Your task to perform on an android device: When is my next appointment? Image 0: 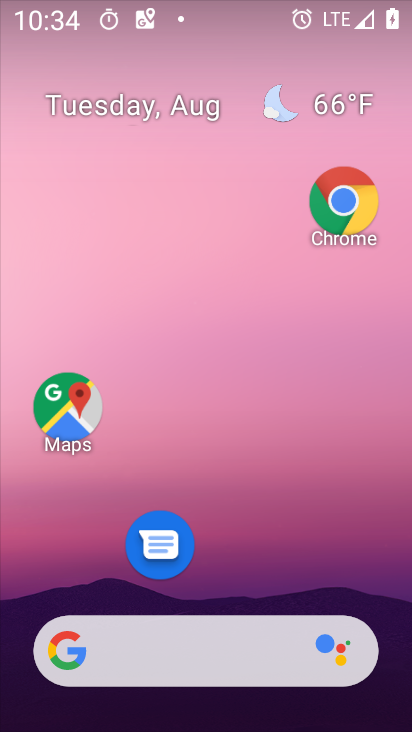
Step 0: drag from (202, 630) to (242, 41)
Your task to perform on an android device: When is my next appointment? Image 1: 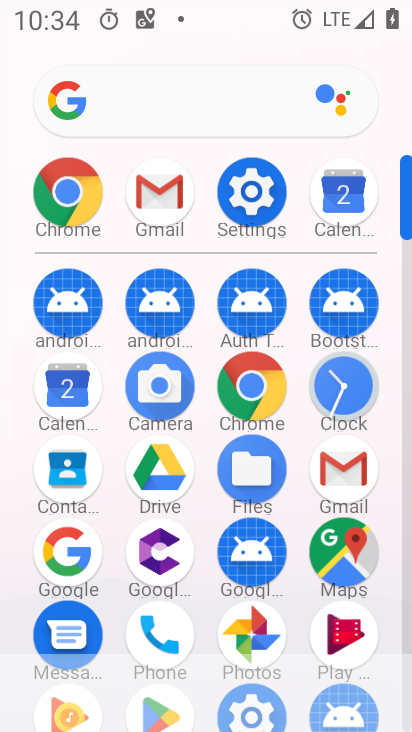
Step 1: click (70, 390)
Your task to perform on an android device: When is my next appointment? Image 2: 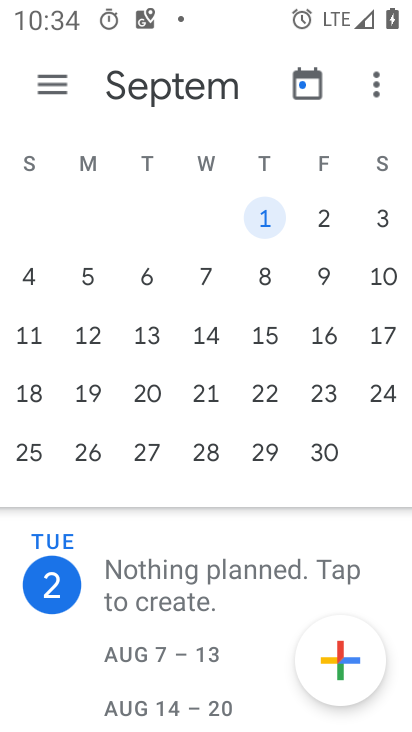
Step 2: click (55, 81)
Your task to perform on an android device: When is my next appointment? Image 3: 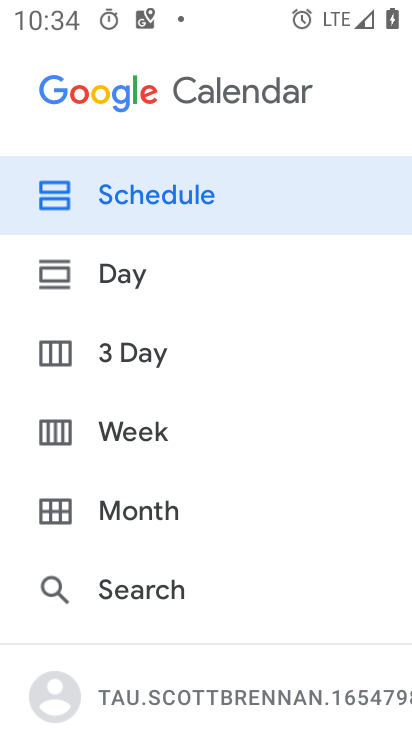
Step 3: drag from (252, 587) to (291, 29)
Your task to perform on an android device: When is my next appointment? Image 4: 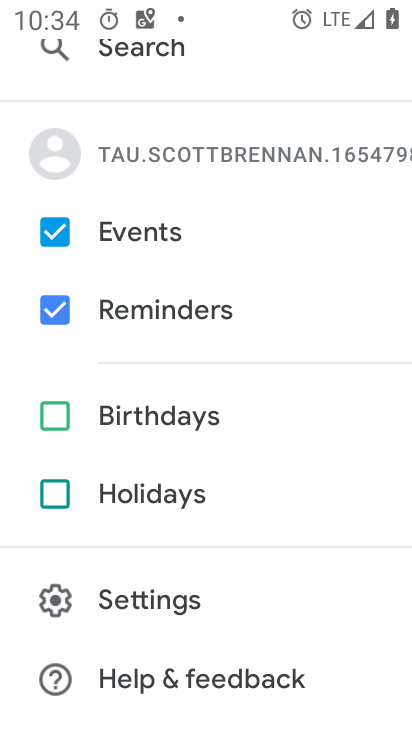
Step 4: press back button
Your task to perform on an android device: When is my next appointment? Image 5: 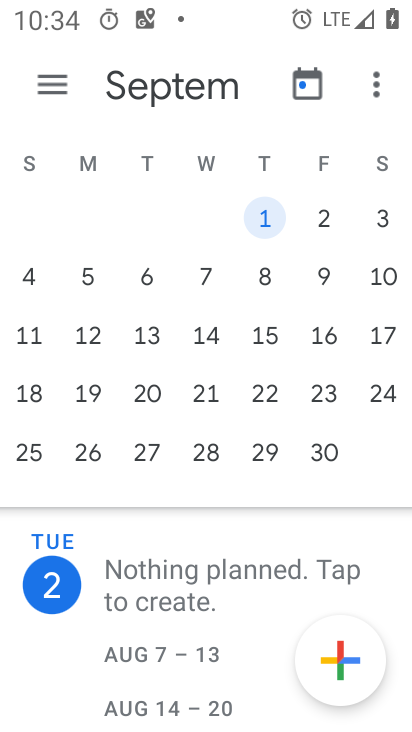
Step 5: drag from (43, 364) to (381, 355)
Your task to perform on an android device: When is my next appointment? Image 6: 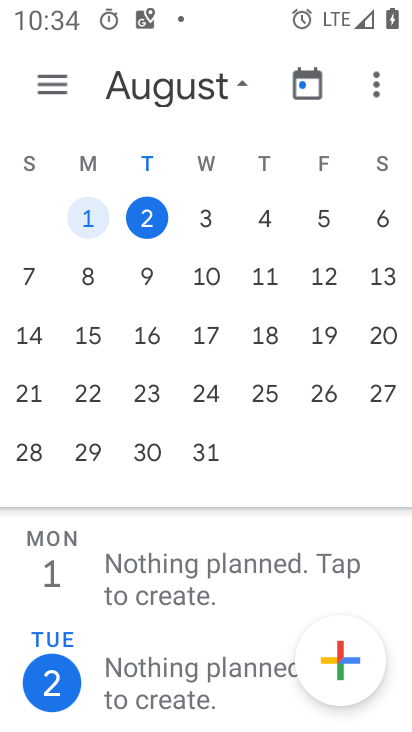
Step 6: click (149, 220)
Your task to perform on an android device: When is my next appointment? Image 7: 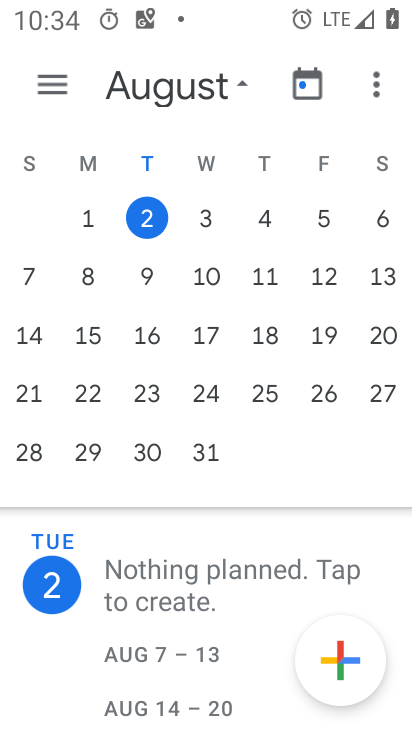
Step 7: task complete